Your task to perform on an android device: change your default location settings in chrome Image 0: 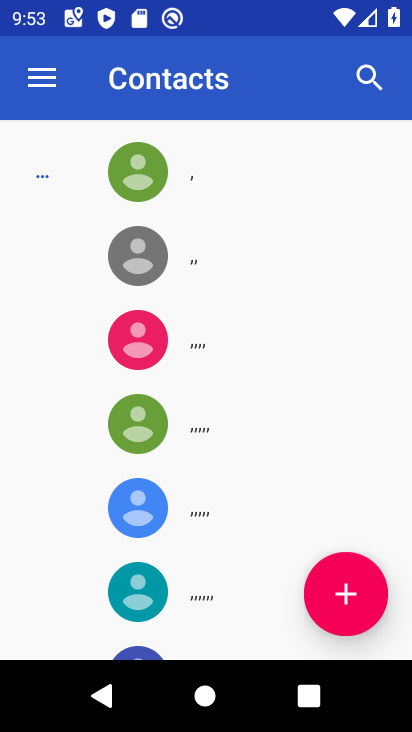
Step 0: press home button
Your task to perform on an android device: change your default location settings in chrome Image 1: 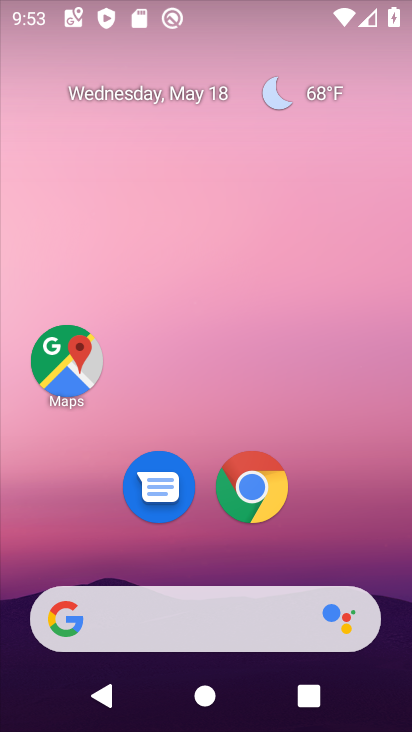
Step 1: drag from (348, 447) to (330, 191)
Your task to perform on an android device: change your default location settings in chrome Image 2: 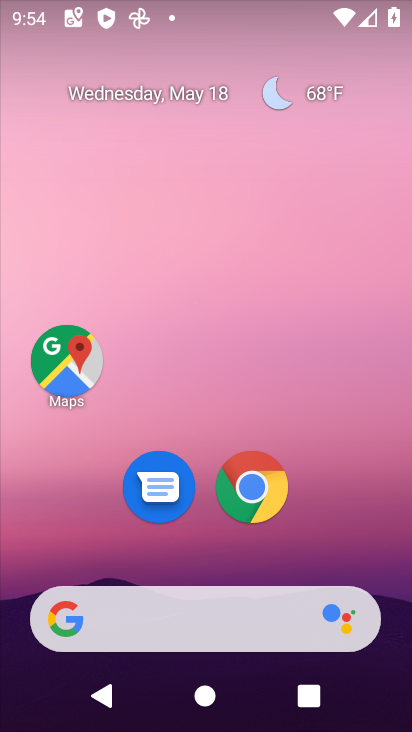
Step 2: drag from (378, 530) to (338, 87)
Your task to perform on an android device: change your default location settings in chrome Image 3: 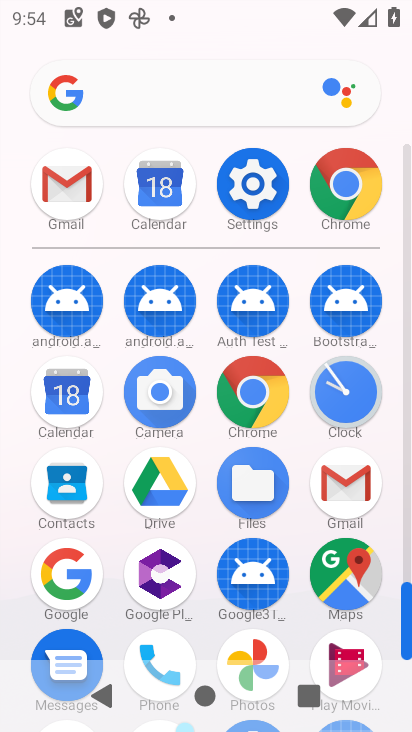
Step 3: click (242, 395)
Your task to perform on an android device: change your default location settings in chrome Image 4: 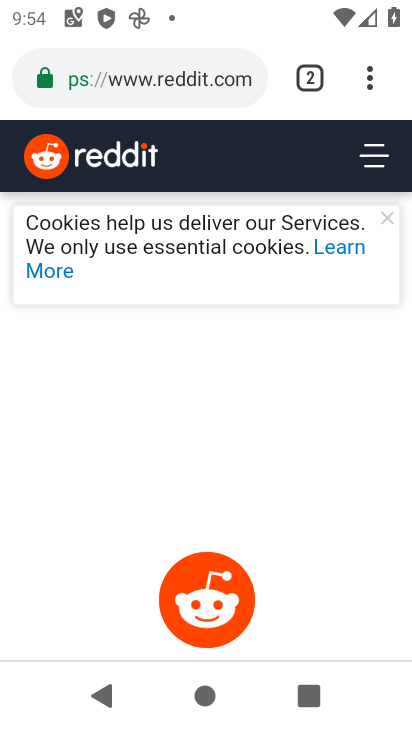
Step 4: drag from (371, 76) to (124, 565)
Your task to perform on an android device: change your default location settings in chrome Image 5: 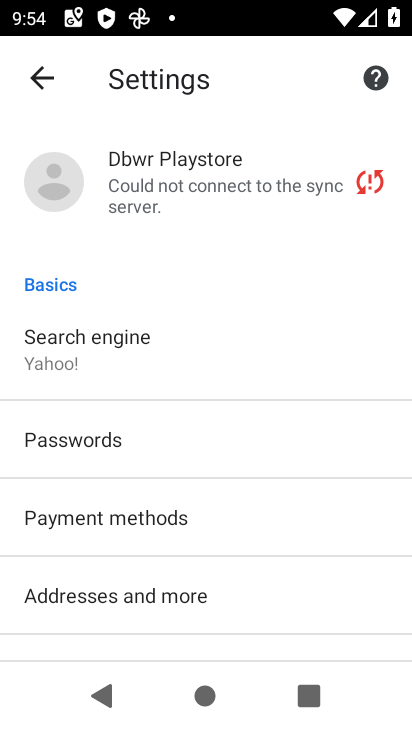
Step 5: drag from (299, 597) to (284, 279)
Your task to perform on an android device: change your default location settings in chrome Image 6: 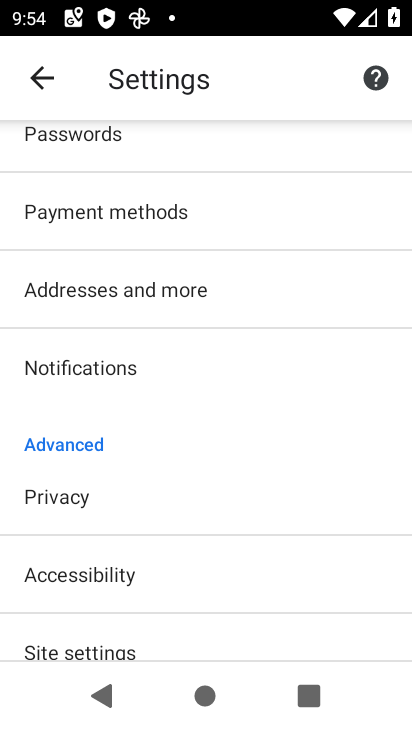
Step 6: drag from (286, 217) to (297, 571)
Your task to perform on an android device: change your default location settings in chrome Image 7: 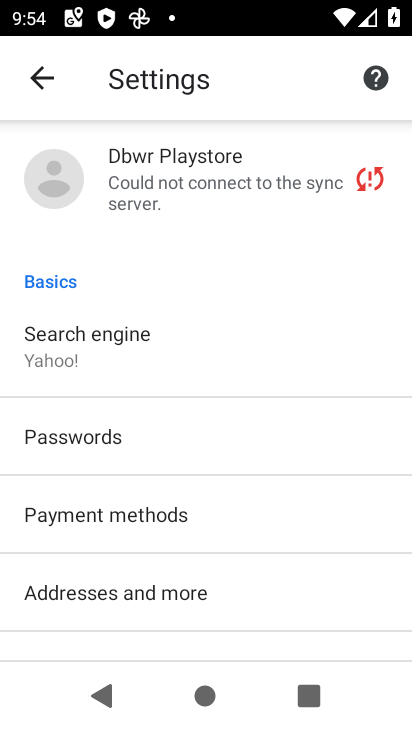
Step 7: drag from (299, 578) to (264, 286)
Your task to perform on an android device: change your default location settings in chrome Image 8: 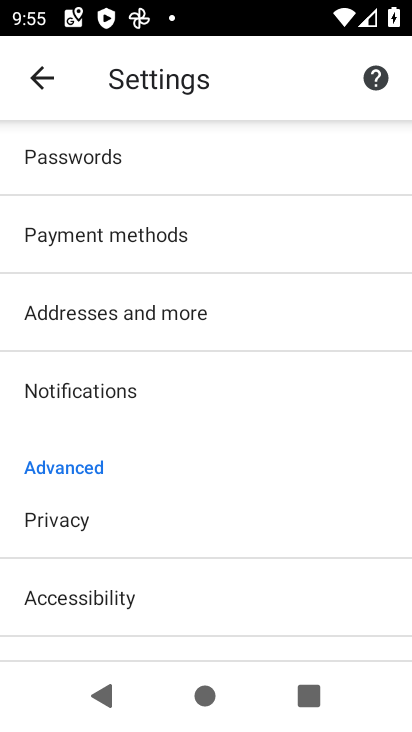
Step 8: drag from (278, 580) to (282, 295)
Your task to perform on an android device: change your default location settings in chrome Image 9: 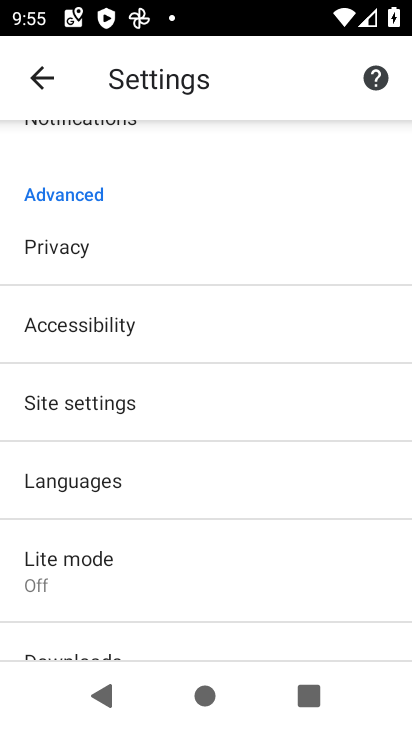
Step 9: drag from (193, 537) to (205, 251)
Your task to perform on an android device: change your default location settings in chrome Image 10: 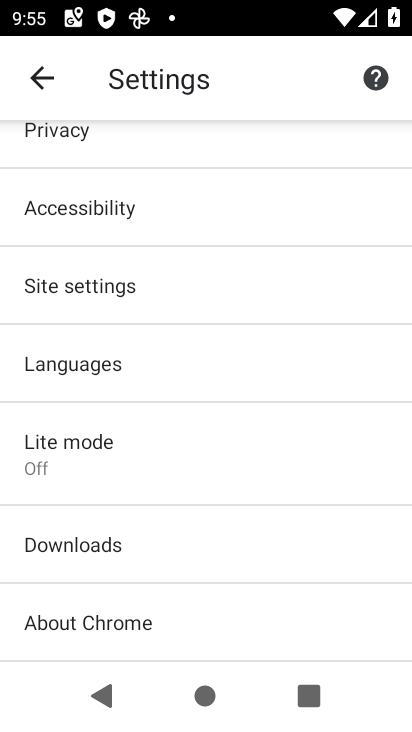
Step 10: drag from (211, 241) to (233, 488)
Your task to perform on an android device: change your default location settings in chrome Image 11: 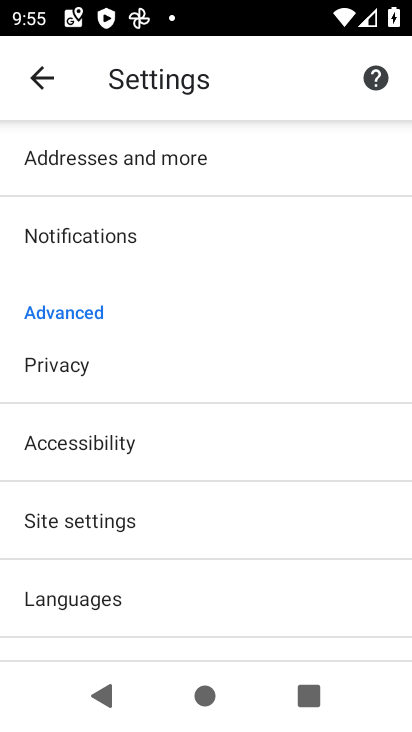
Step 11: click (132, 509)
Your task to perform on an android device: change your default location settings in chrome Image 12: 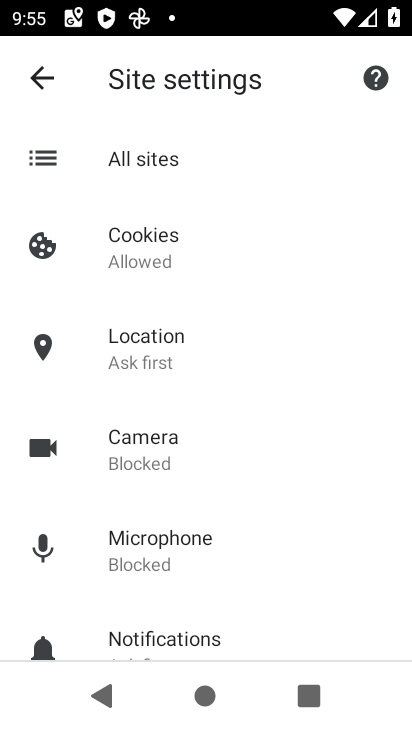
Step 12: click (150, 362)
Your task to perform on an android device: change your default location settings in chrome Image 13: 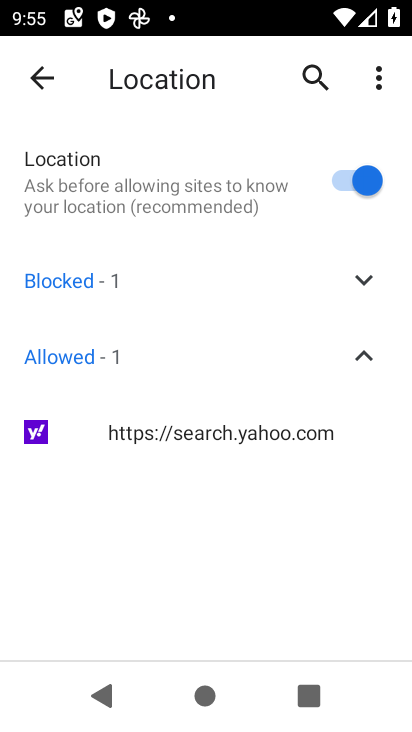
Step 13: click (342, 175)
Your task to perform on an android device: change your default location settings in chrome Image 14: 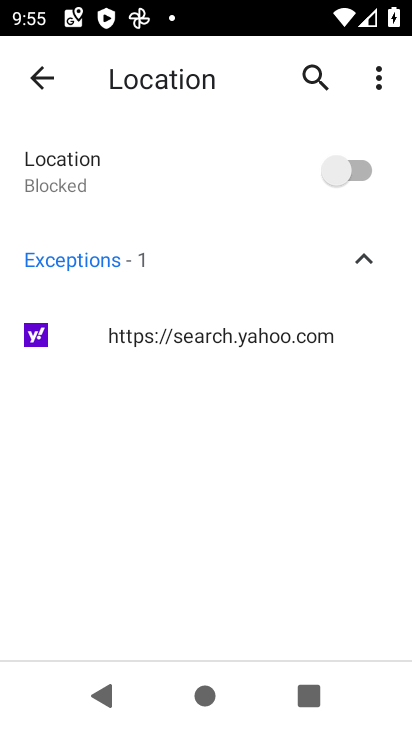
Step 14: task complete